Your task to perform on an android device: What's the weather today? Image 0: 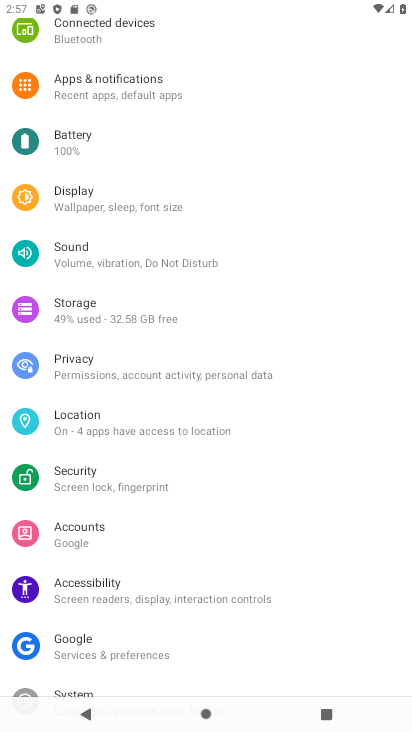
Step 0: press home button
Your task to perform on an android device: What's the weather today? Image 1: 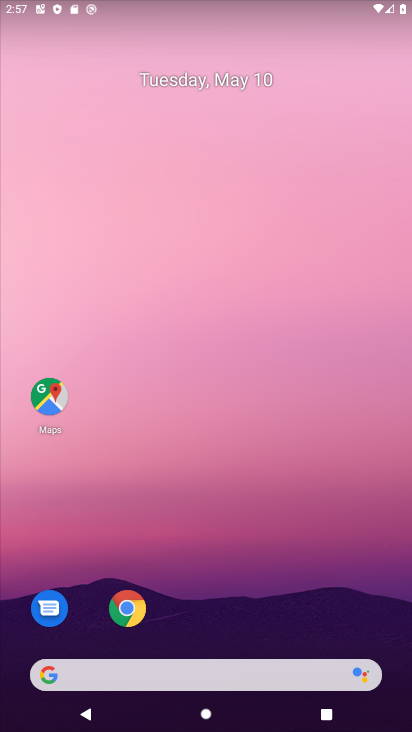
Step 1: click (207, 667)
Your task to perform on an android device: What's the weather today? Image 2: 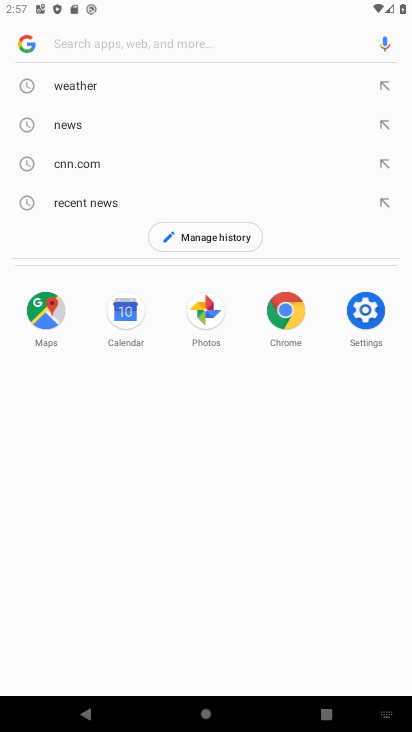
Step 2: click (86, 91)
Your task to perform on an android device: What's the weather today? Image 3: 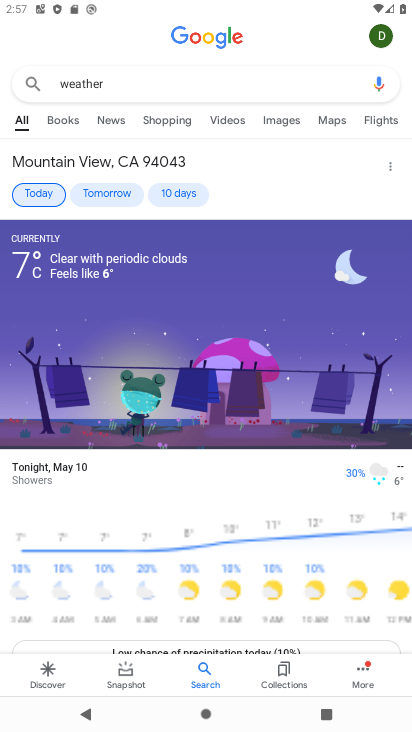
Step 3: task complete